Your task to perform on an android device: Check the news Image 0: 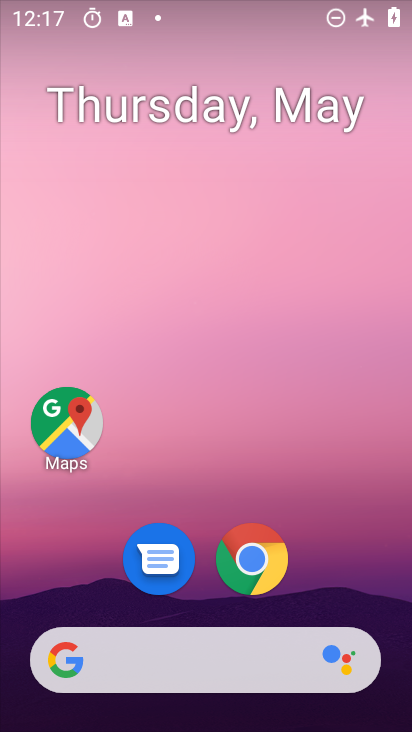
Step 0: drag from (238, 614) to (275, 157)
Your task to perform on an android device: Check the news Image 1: 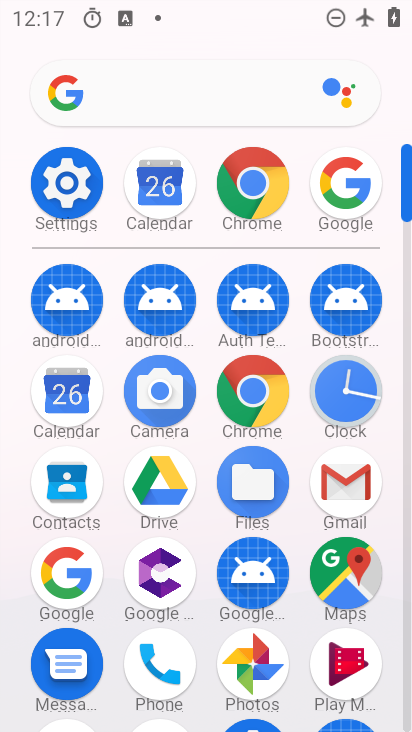
Step 1: click (84, 587)
Your task to perform on an android device: Check the news Image 2: 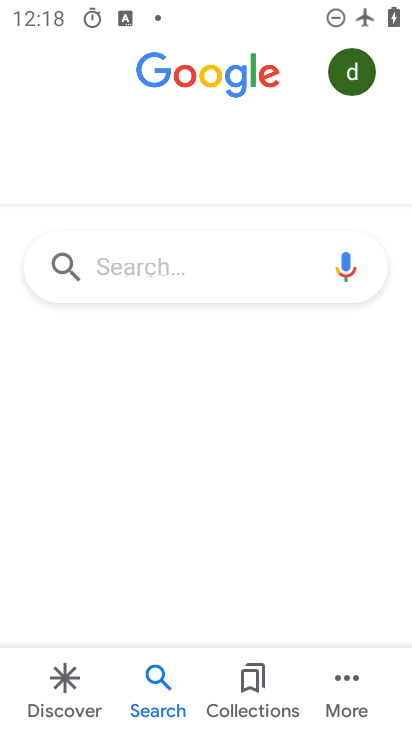
Step 2: click (232, 283)
Your task to perform on an android device: Check the news Image 3: 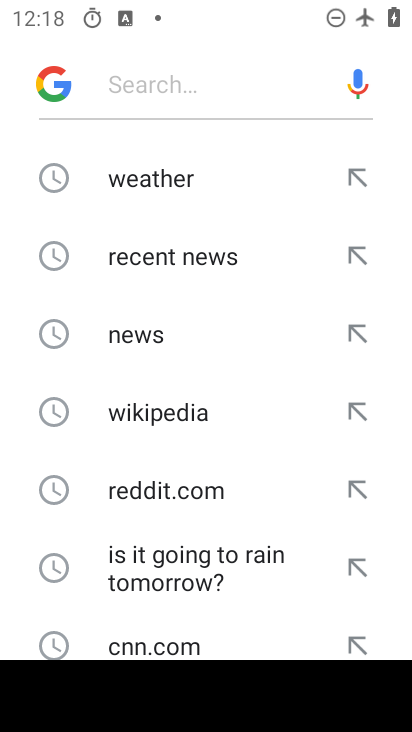
Step 3: click (245, 328)
Your task to perform on an android device: Check the news Image 4: 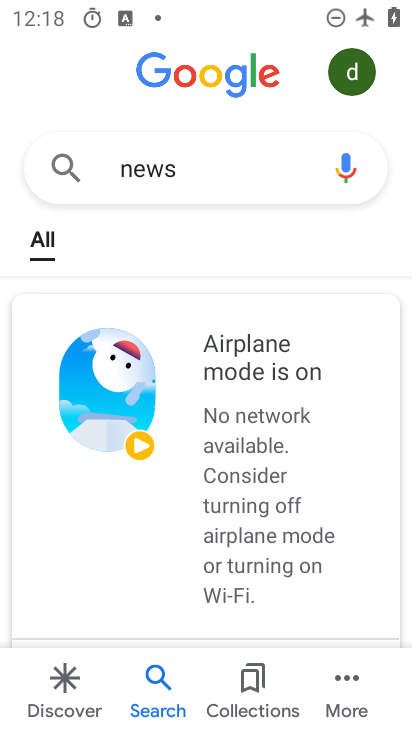
Step 4: task complete